Your task to perform on an android device: change keyboard looks Image 0: 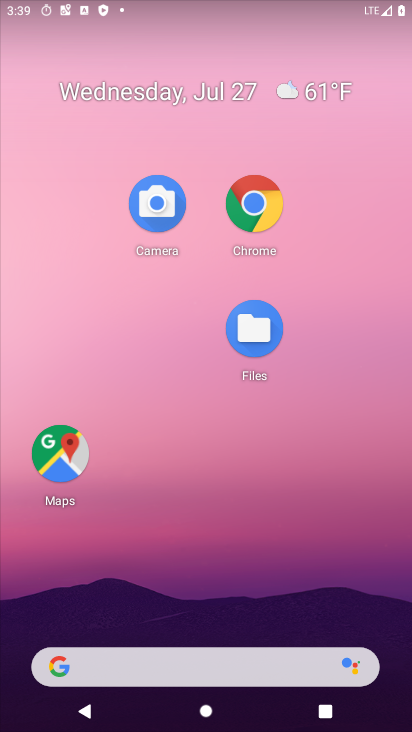
Step 0: drag from (198, 604) to (223, 146)
Your task to perform on an android device: change keyboard looks Image 1: 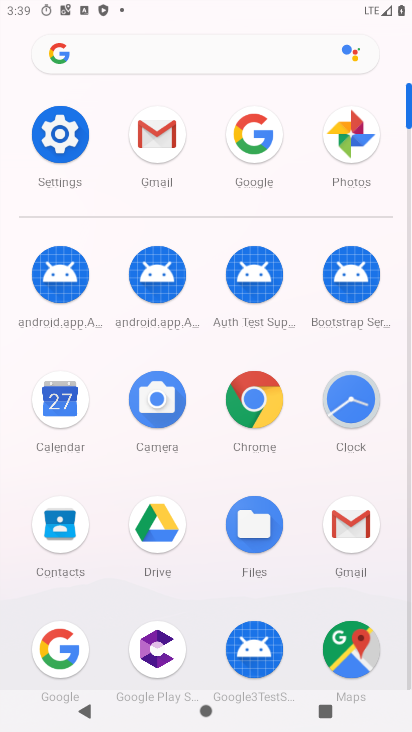
Step 1: click (74, 136)
Your task to perform on an android device: change keyboard looks Image 2: 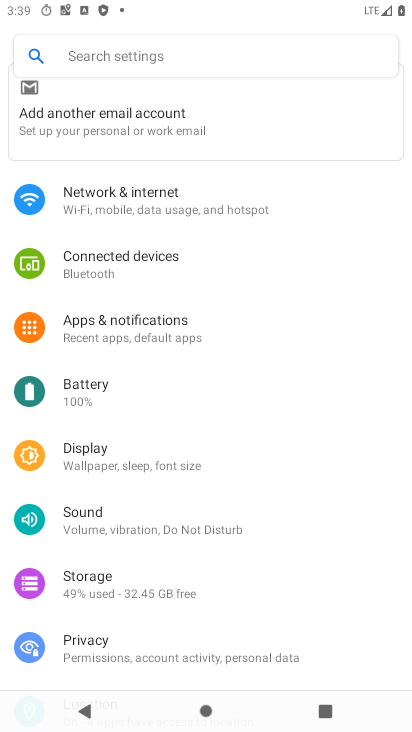
Step 2: drag from (195, 619) to (223, 308)
Your task to perform on an android device: change keyboard looks Image 3: 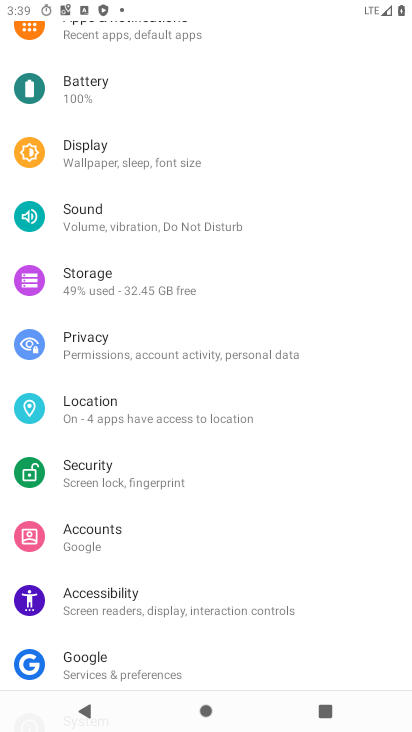
Step 3: drag from (133, 630) to (135, 220)
Your task to perform on an android device: change keyboard looks Image 4: 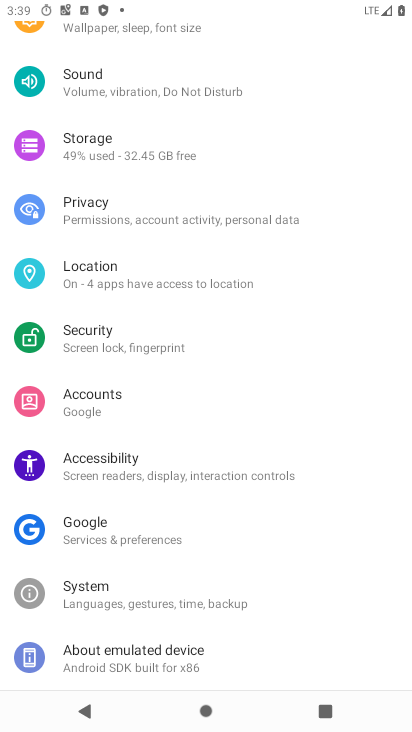
Step 4: click (128, 592)
Your task to perform on an android device: change keyboard looks Image 5: 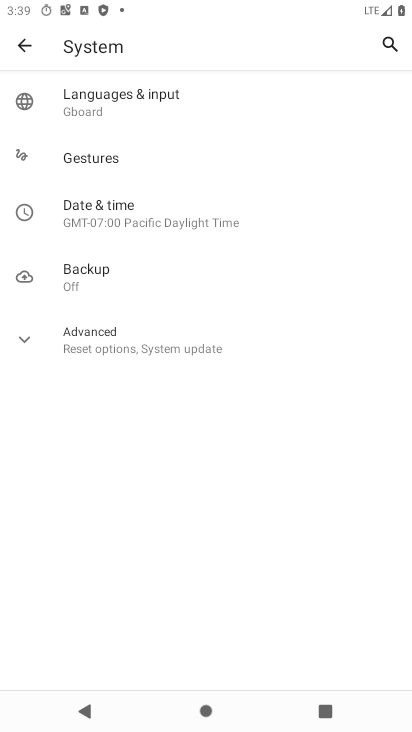
Step 5: click (125, 112)
Your task to perform on an android device: change keyboard looks Image 6: 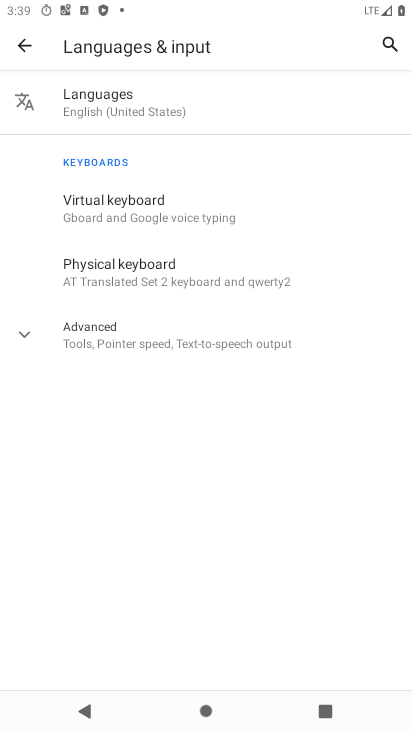
Step 6: click (133, 215)
Your task to perform on an android device: change keyboard looks Image 7: 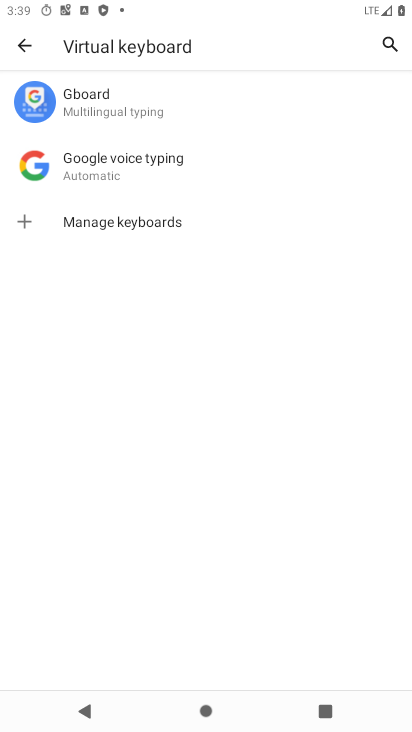
Step 7: click (133, 121)
Your task to perform on an android device: change keyboard looks Image 8: 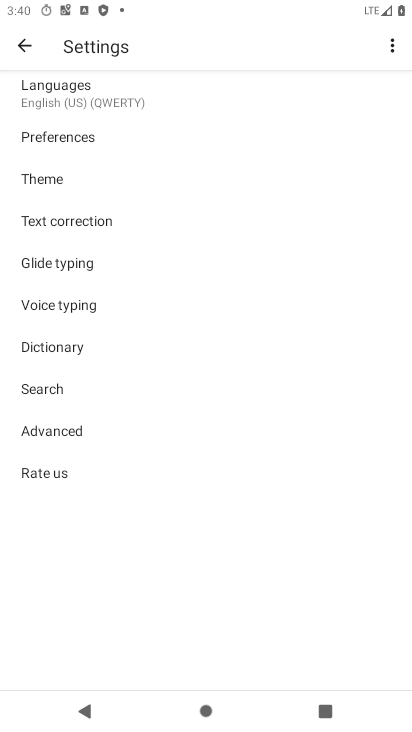
Step 8: click (83, 173)
Your task to perform on an android device: change keyboard looks Image 9: 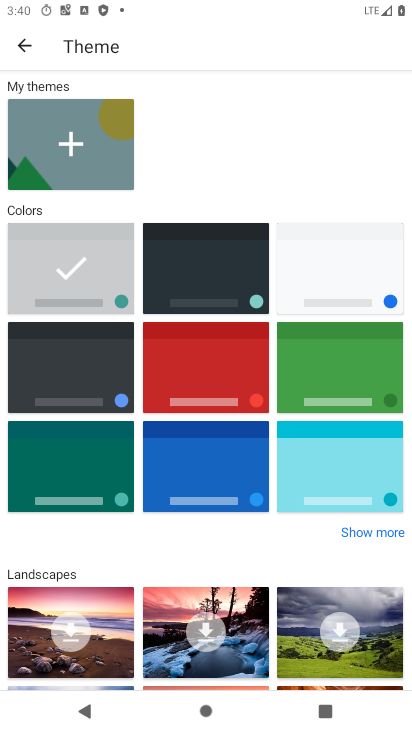
Step 9: click (297, 465)
Your task to perform on an android device: change keyboard looks Image 10: 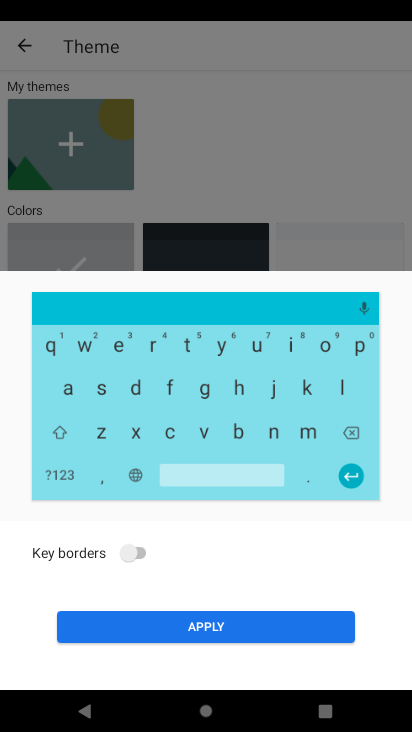
Step 10: click (222, 627)
Your task to perform on an android device: change keyboard looks Image 11: 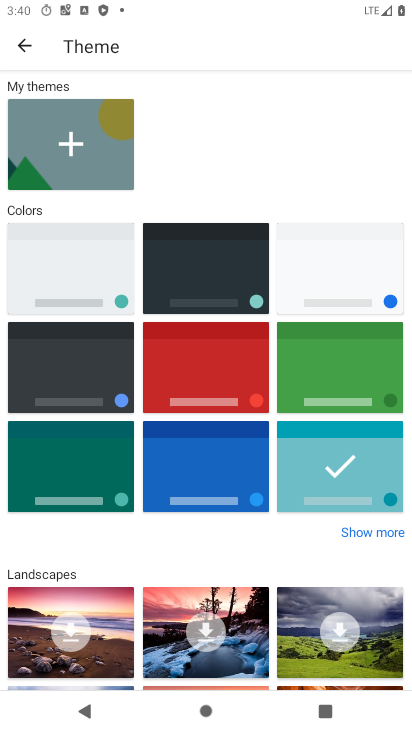
Step 11: task complete